Your task to perform on an android device: open chrome privacy settings Image 0: 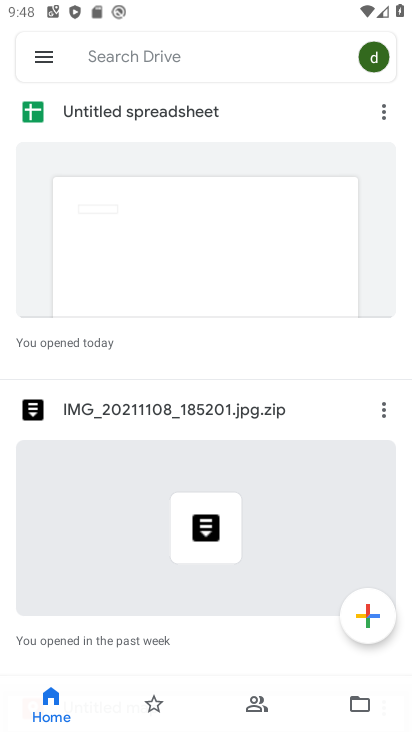
Step 0: press home button
Your task to perform on an android device: open chrome privacy settings Image 1: 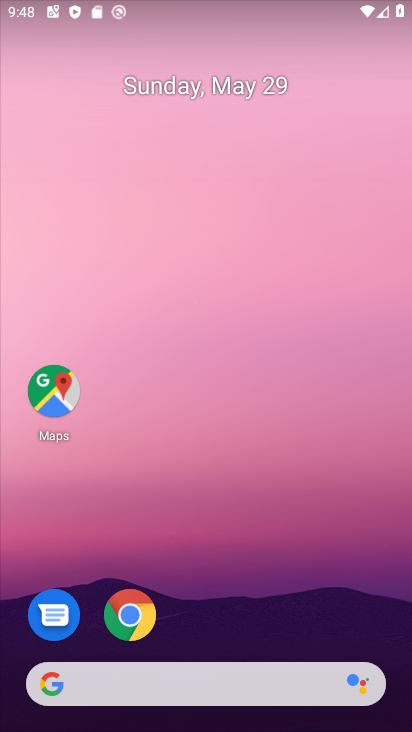
Step 1: click (143, 614)
Your task to perform on an android device: open chrome privacy settings Image 2: 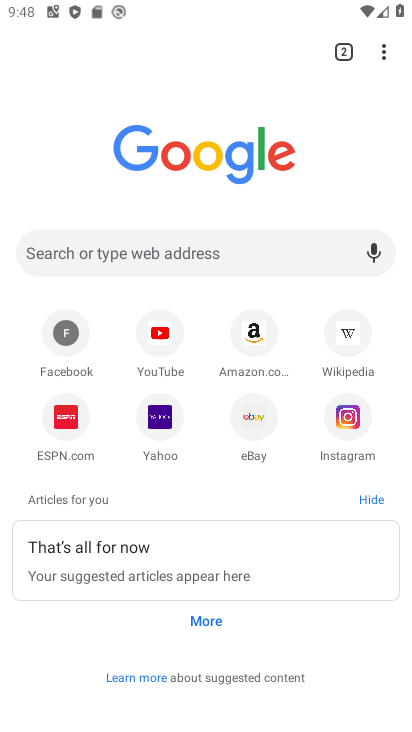
Step 2: click (373, 44)
Your task to perform on an android device: open chrome privacy settings Image 3: 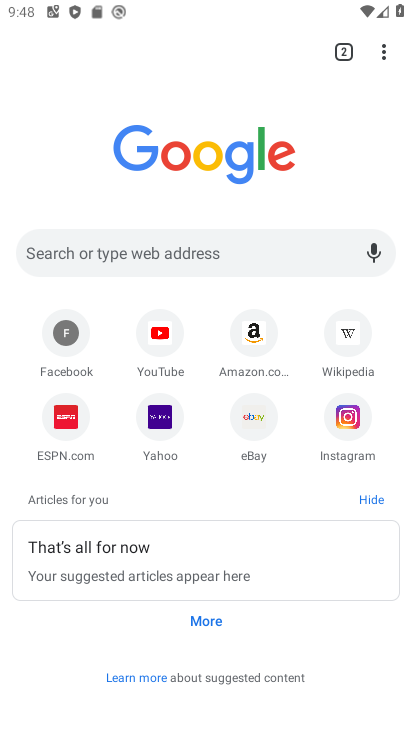
Step 3: click (383, 50)
Your task to perform on an android device: open chrome privacy settings Image 4: 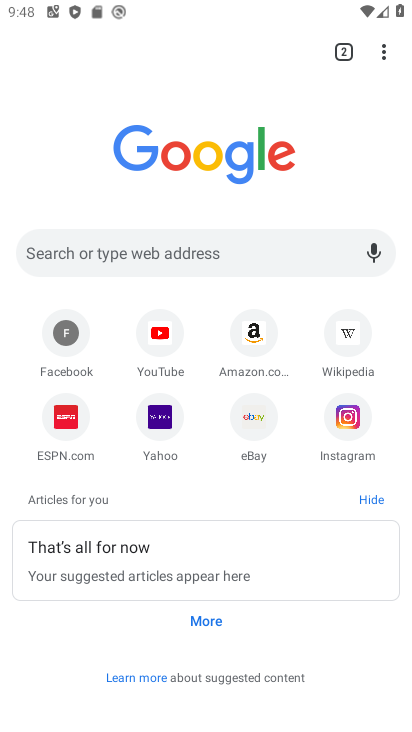
Step 4: drag from (383, 50) to (179, 437)
Your task to perform on an android device: open chrome privacy settings Image 5: 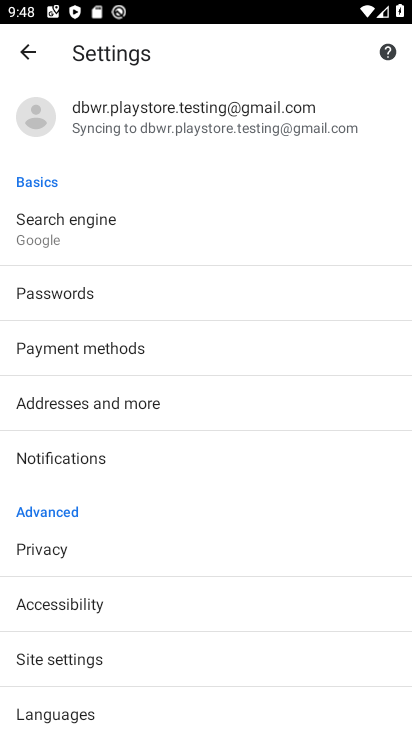
Step 5: click (66, 557)
Your task to perform on an android device: open chrome privacy settings Image 6: 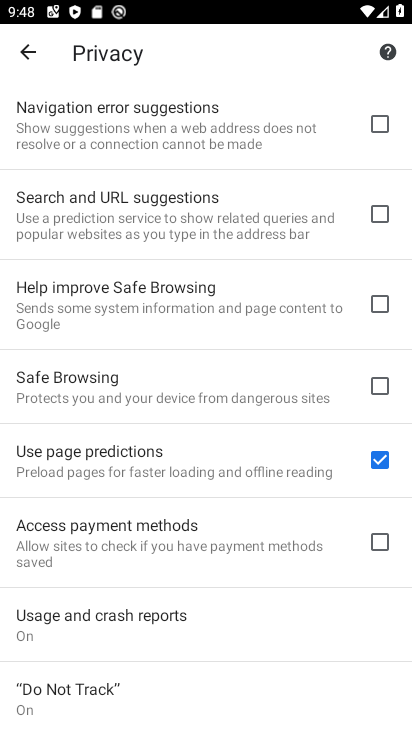
Step 6: task complete